Your task to perform on an android device: Open the map Image 0: 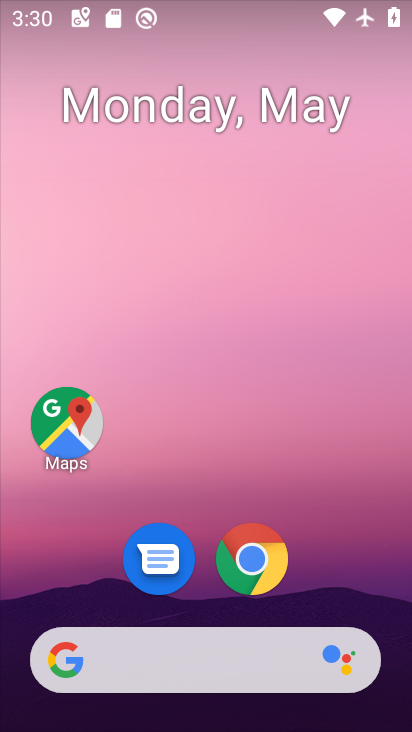
Step 0: click (49, 438)
Your task to perform on an android device: Open the map Image 1: 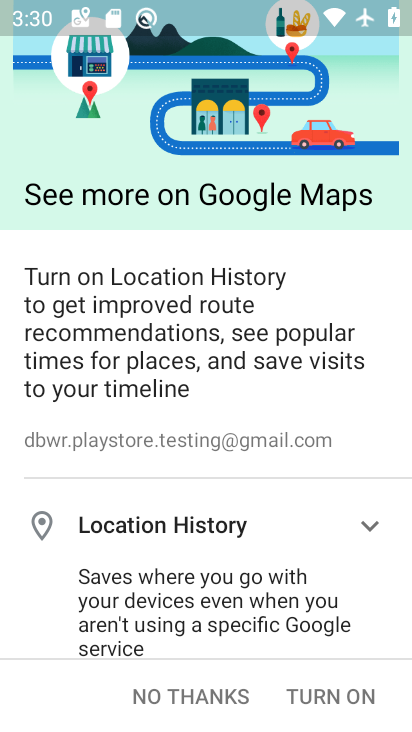
Step 1: click (176, 712)
Your task to perform on an android device: Open the map Image 2: 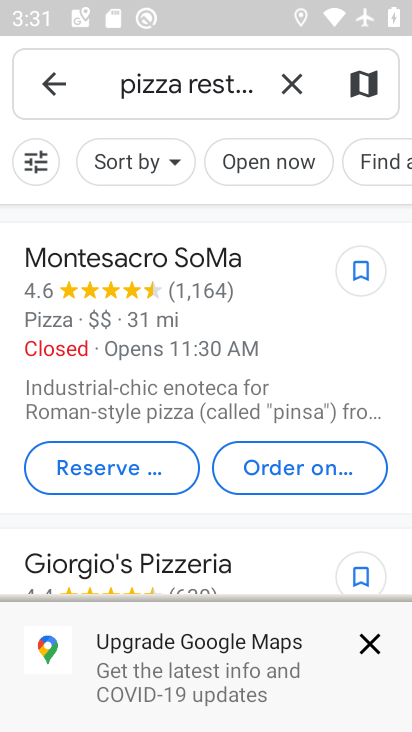
Step 2: click (372, 646)
Your task to perform on an android device: Open the map Image 3: 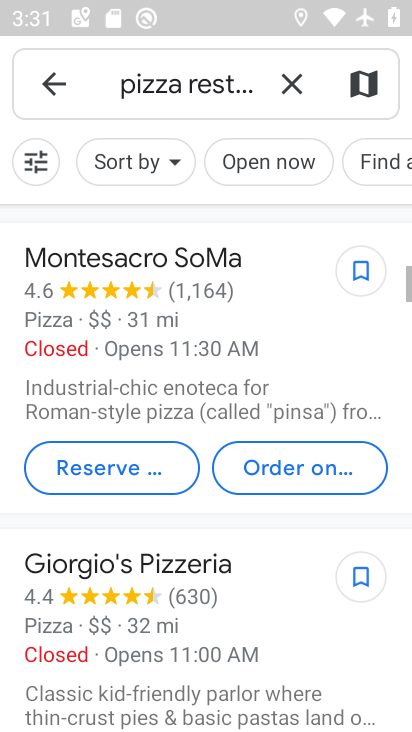
Step 3: task complete